Your task to perform on an android device: Search for seafood restaurants on Google Maps Image 0: 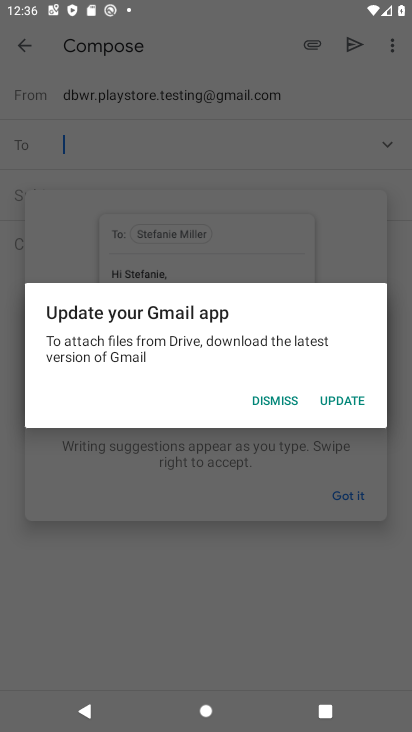
Step 0: press home button
Your task to perform on an android device: Search for seafood restaurants on Google Maps Image 1: 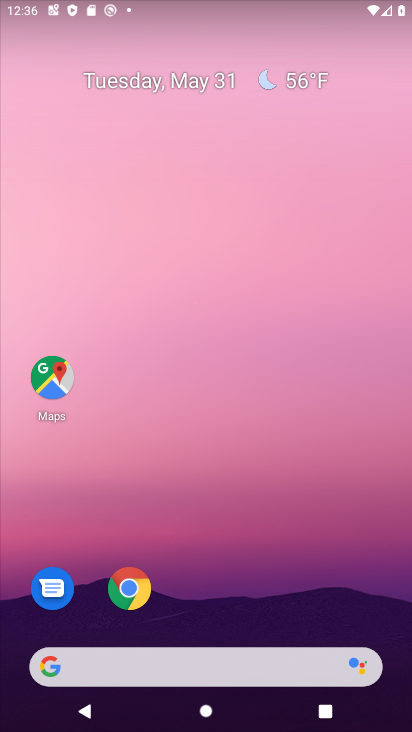
Step 1: drag from (179, 611) to (177, 189)
Your task to perform on an android device: Search for seafood restaurants on Google Maps Image 2: 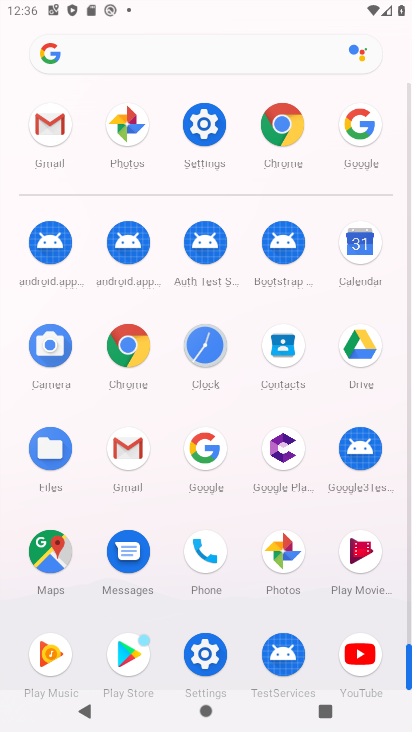
Step 2: click (48, 573)
Your task to perform on an android device: Search for seafood restaurants on Google Maps Image 3: 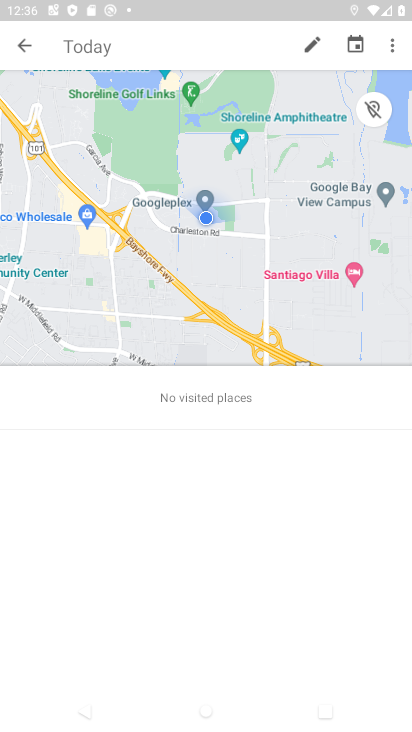
Step 3: click (20, 53)
Your task to perform on an android device: Search for seafood restaurants on Google Maps Image 4: 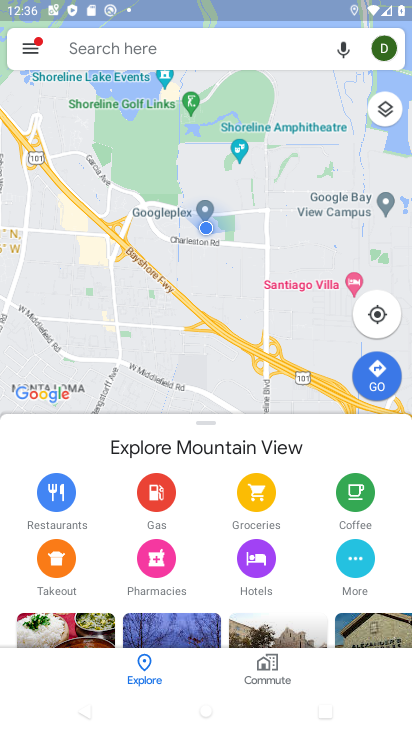
Step 4: click (165, 54)
Your task to perform on an android device: Search for seafood restaurants on Google Maps Image 5: 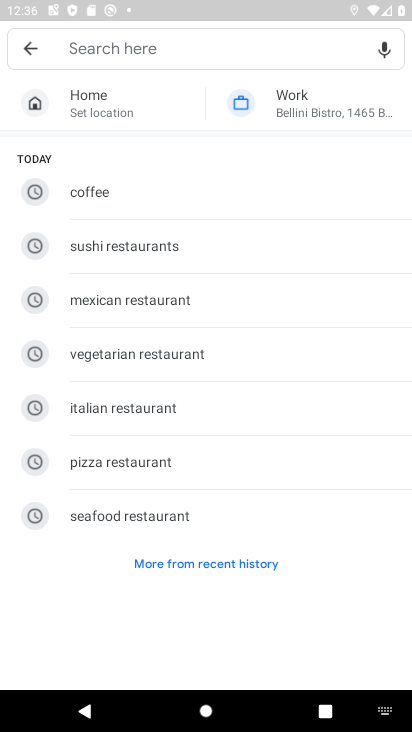
Step 5: click (124, 520)
Your task to perform on an android device: Search for seafood restaurants on Google Maps Image 6: 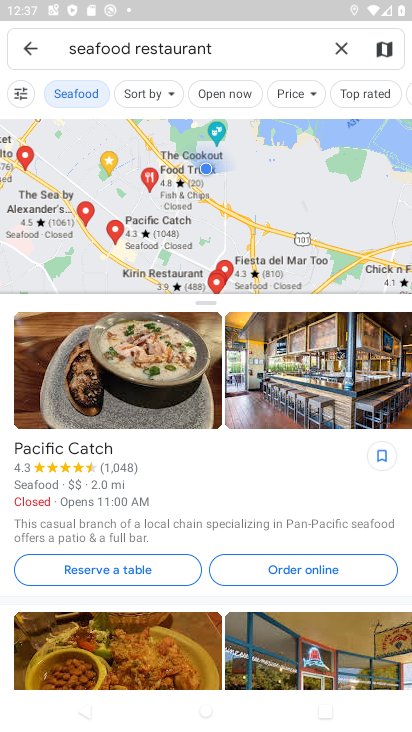
Step 6: task complete